Your task to perform on an android device: change the clock style Image 0: 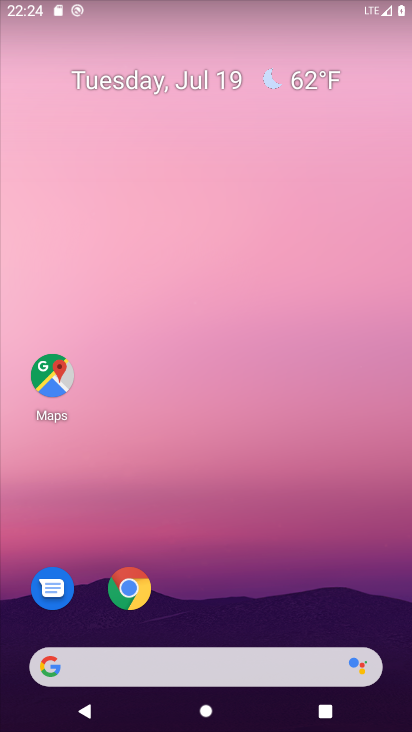
Step 0: drag from (176, 554) to (210, 98)
Your task to perform on an android device: change the clock style Image 1: 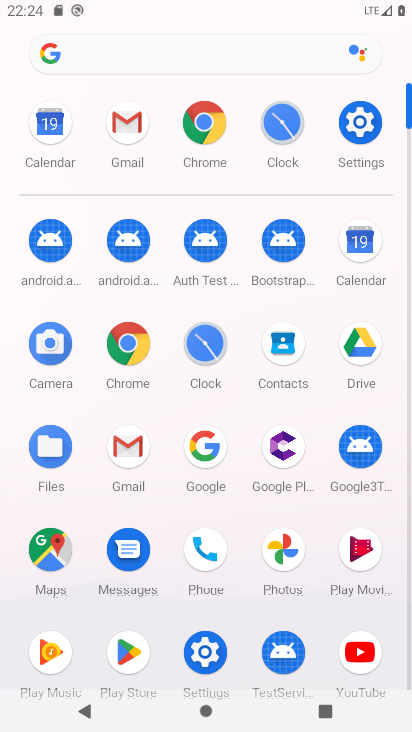
Step 1: click (210, 365)
Your task to perform on an android device: change the clock style Image 2: 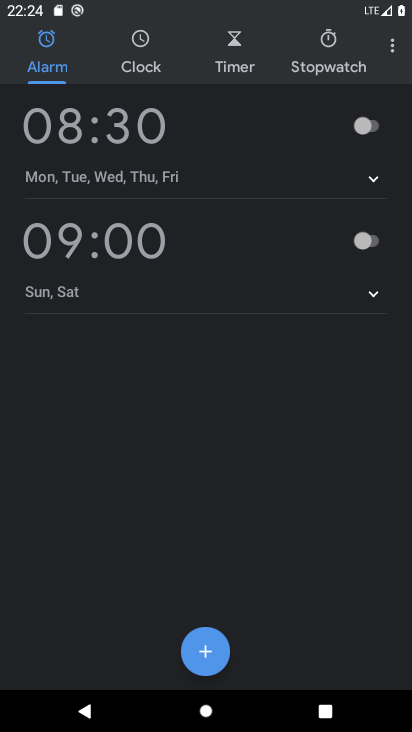
Step 2: click (390, 40)
Your task to perform on an android device: change the clock style Image 3: 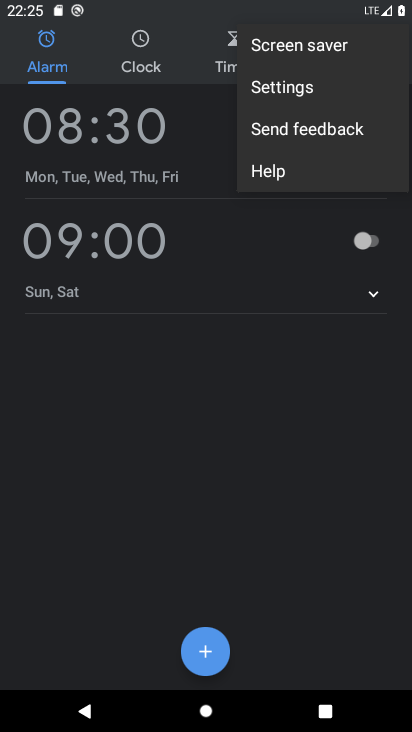
Step 3: click (300, 88)
Your task to perform on an android device: change the clock style Image 4: 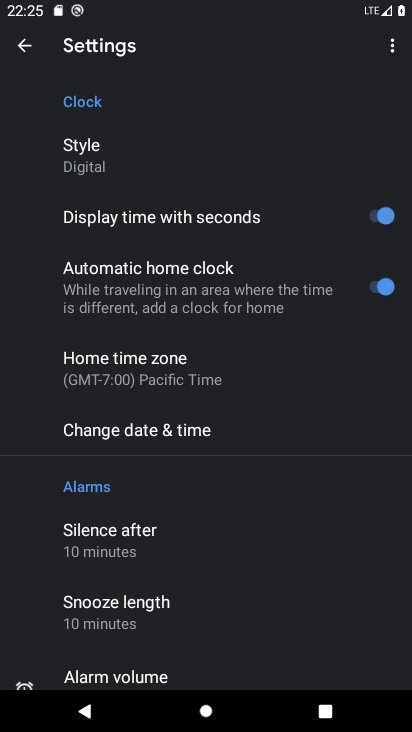
Step 4: click (109, 151)
Your task to perform on an android device: change the clock style Image 5: 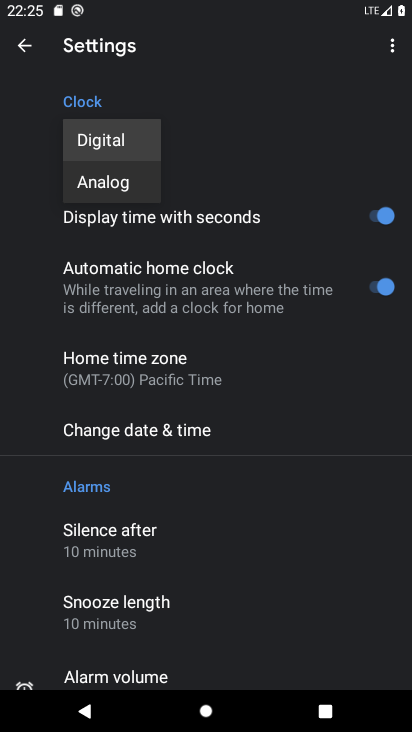
Step 5: click (89, 179)
Your task to perform on an android device: change the clock style Image 6: 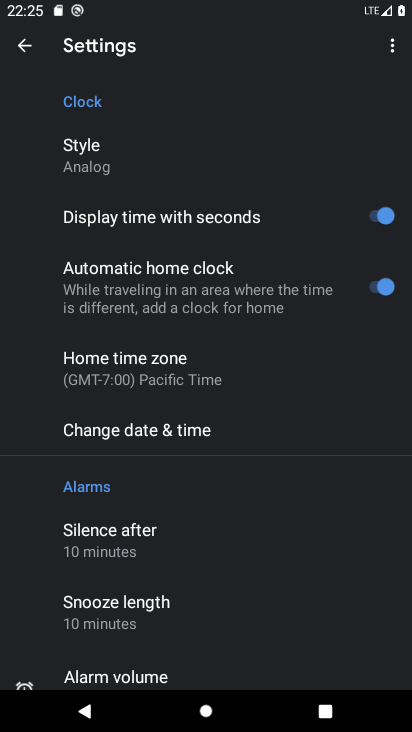
Step 6: task complete